Your task to perform on an android device: turn off improve location accuracy Image 0: 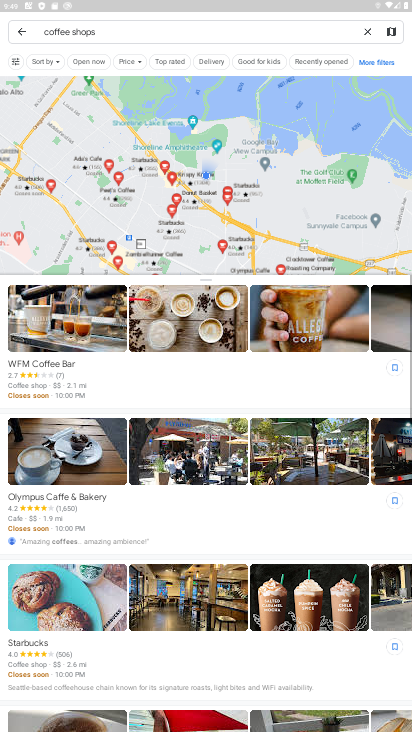
Step 0: press home button
Your task to perform on an android device: turn off improve location accuracy Image 1: 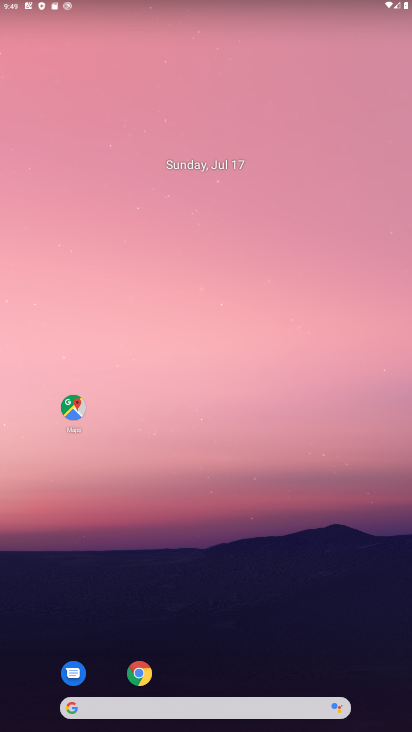
Step 1: drag from (250, 653) to (281, 75)
Your task to perform on an android device: turn off improve location accuracy Image 2: 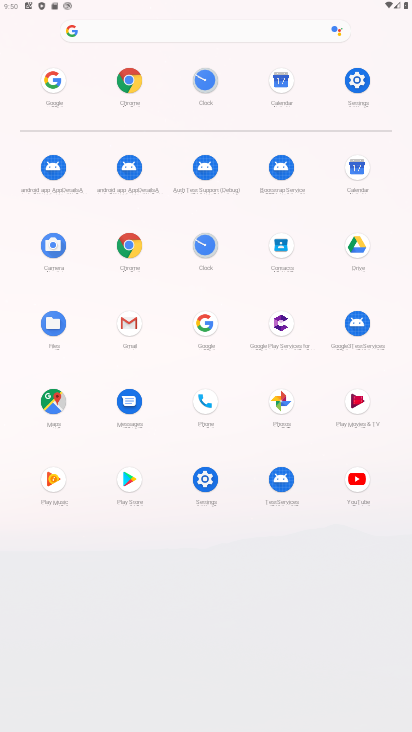
Step 2: click (201, 478)
Your task to perform on an android device: turn off improve location accuracy Image 3: 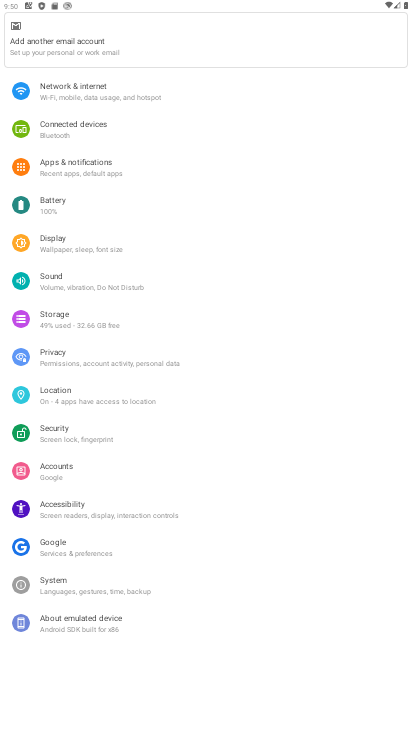
Step 3: click (83, 392)
Your task to perform on an android device: turn off improve location accuracy Image 4: 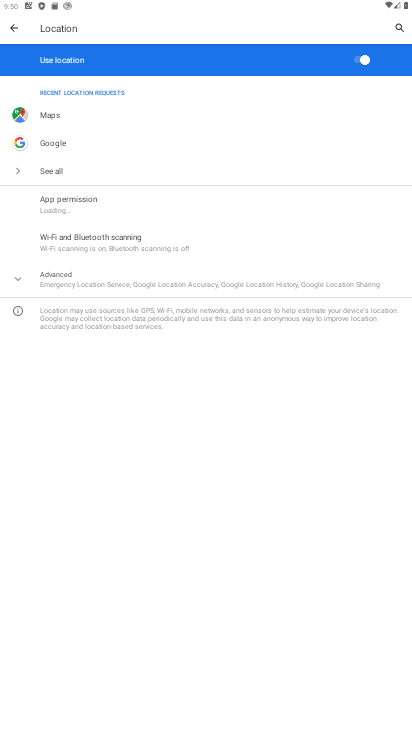
Step 4: click (55, 283)
Your task to perform on an android device: turn off improve location accuracy Image 5: 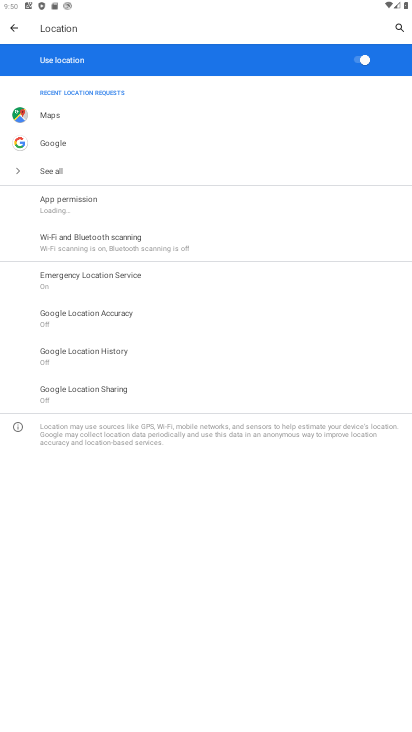
Step 5: click (77, 319)
Your task to perform on an android device: turn off improve location accuracy Image 6: 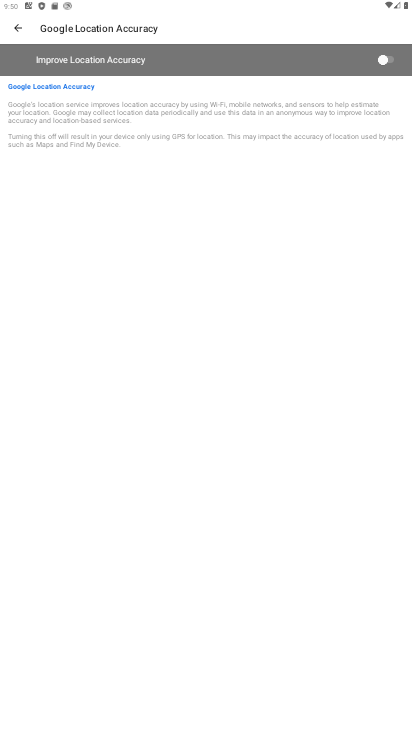
Step 6: task complete